Your task to perform on an android device: toggle notifications settings in the gmail app Image 0: 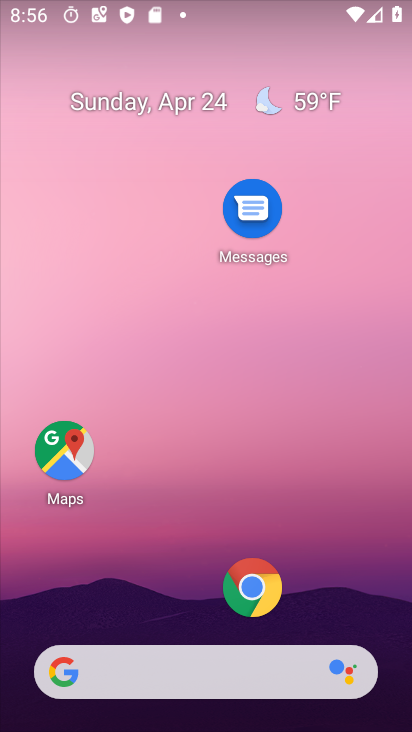
Step 0: drag from (166, 564) to (195, 26)
Your task to perform on an android device: toggle notifications settings in the gmail app Image 1: 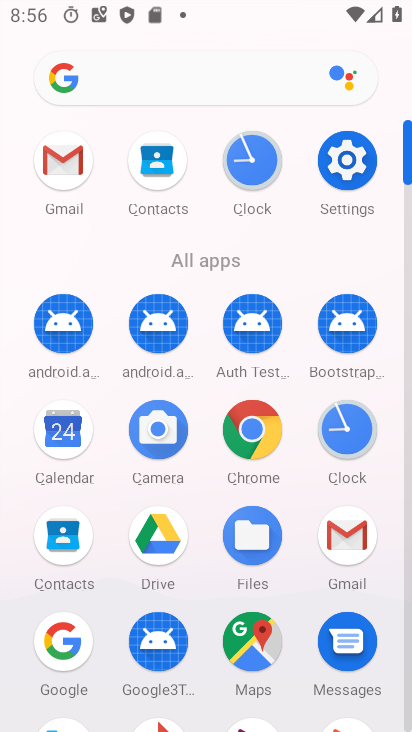
Step 1: click (365, 534)
Your task to perform on an android device: toggle notifications settings in the gmail app Image 2: 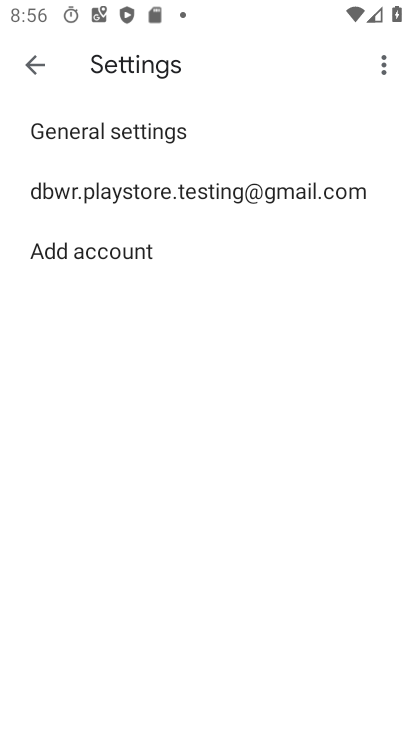
Step 2: click (162, 138)
Your task to perform on an android device: toggle notifications settings in the gmail app Image 3: 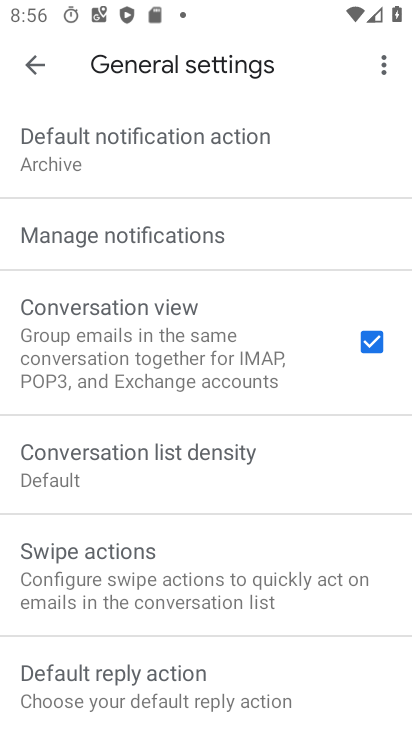
Step 3: click (168, 238)
Your task to perform on an android device: toggle notifications settings in the gmail app Image 4: 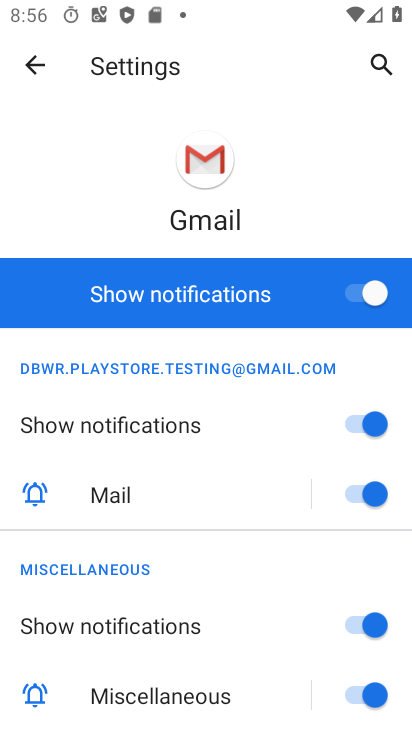
Step 4: click (347, 292)
Your task to perform on an android device: toggle notifications settings in the gmail app Image 5: 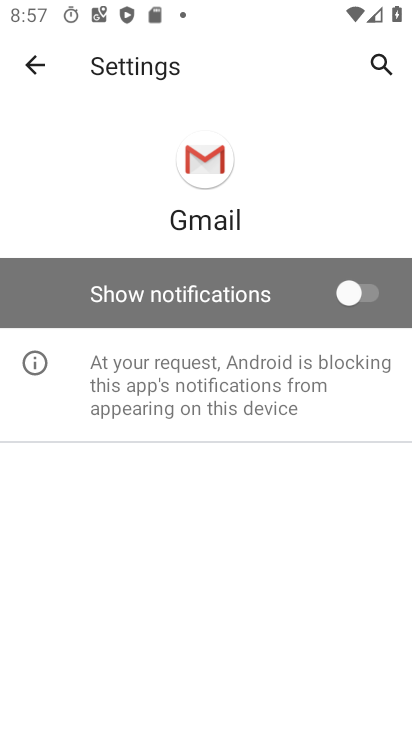
Step 5: task complete